Your task to perform on an android device: Open network settings Image 0: 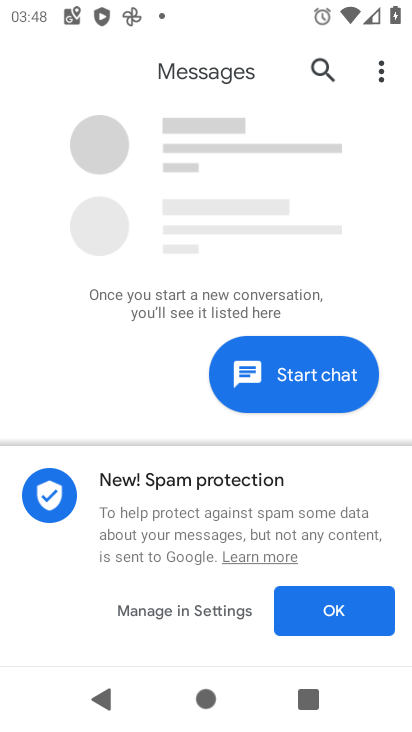
Step 0: press home button
Your task to perform on an android device: Open network settings Image 1: 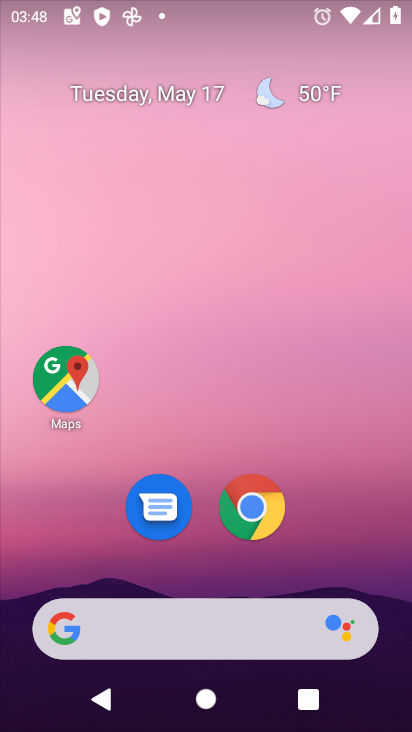
Step 1: drag from (330, 548) to (268, 53)
Your task to perform on an android device: Open network settings Image 2: 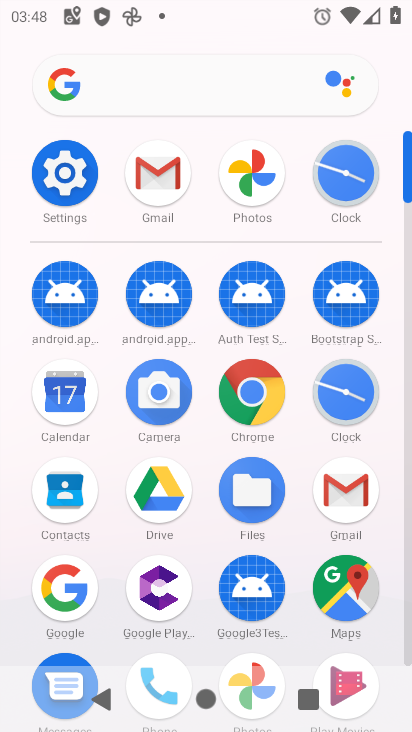
Step 2: click (62, 186)
Your task to perform on an android device: Open network settings Image 3: 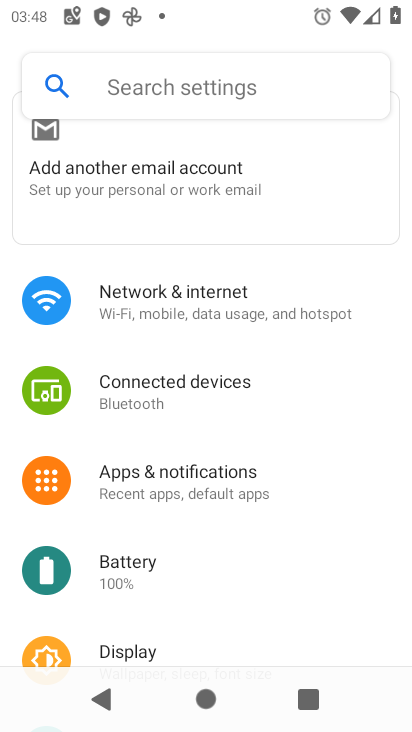
Step 3: click (218, 292)
Your task to perform on an android device: Open network settings Image 4: 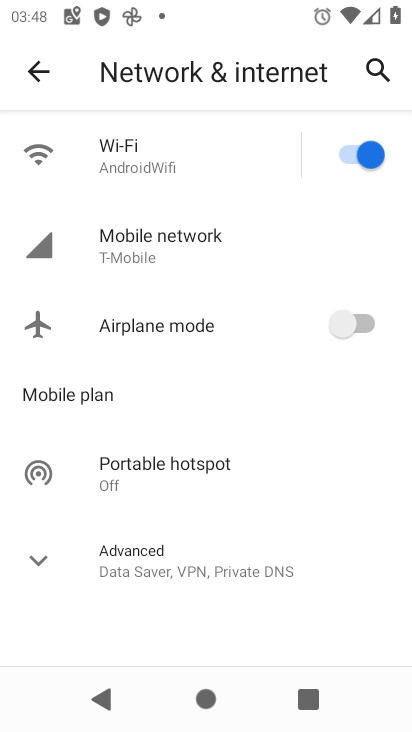
Step 4: task complete